Your task to perform on an android device: Open the map Image 0: 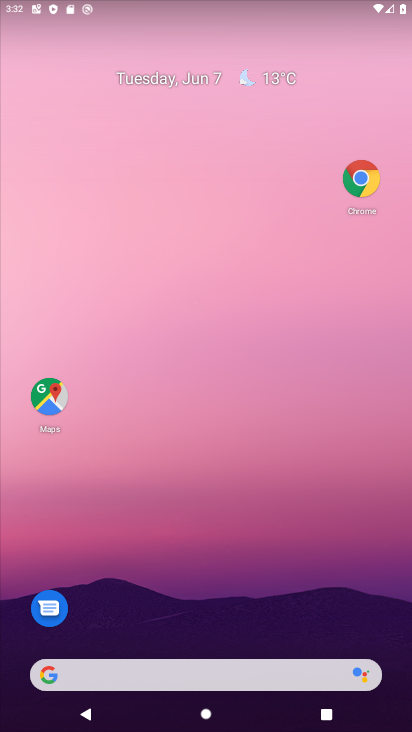
Step 0: click (37, 409)
Your task to perform on an android device: Open the map Image 1: 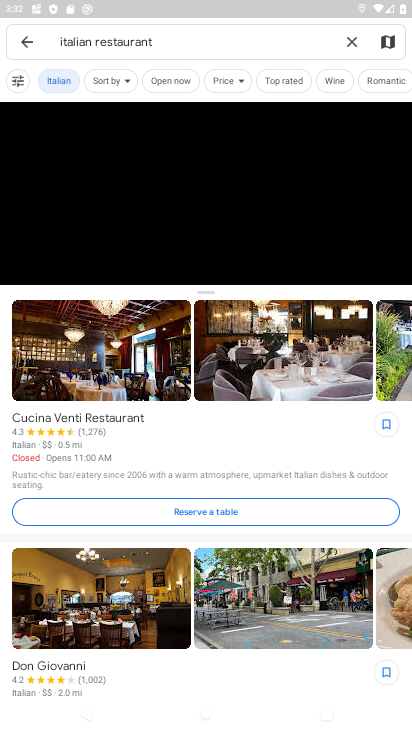
Step 1: task complete